Your task to perform on an android device: Open the Play Movies app and select the watchlist tab. Image 0: 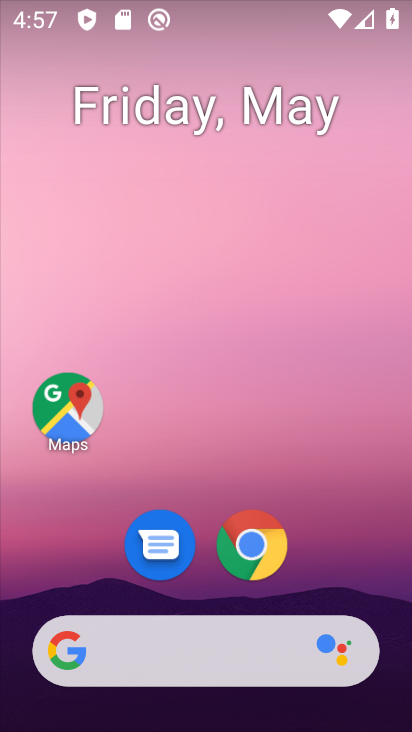
Step 0: click (328, 153)
Your task to perform on an android device: Open the Play Movies app and select the watchlist tab. Image 1: 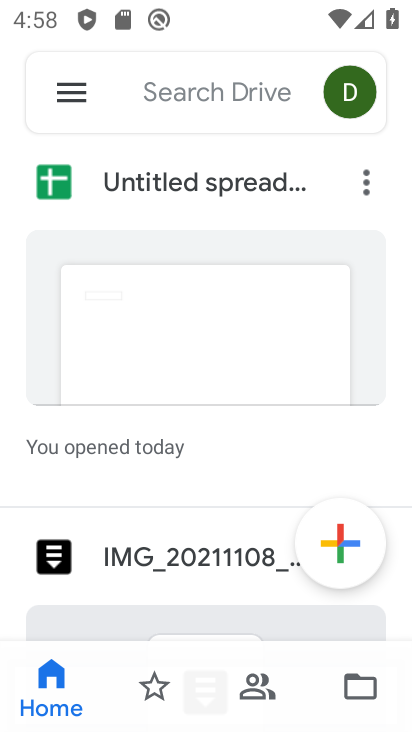
Step 1: press home button
Your task to perform on an android device: Open the Play Movies app and select the watchlist tab. Image 2: 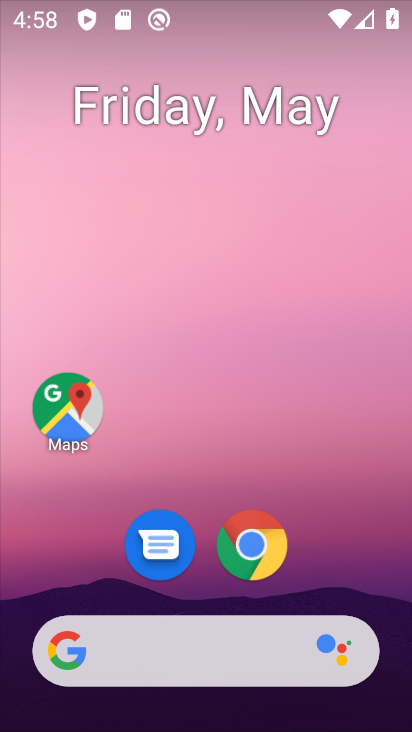
Step 2: drag from (389, 668) to (319, 84)
Your task to perform on an android device: Open the Play Movies app and select the watchlist tab. Image 3: 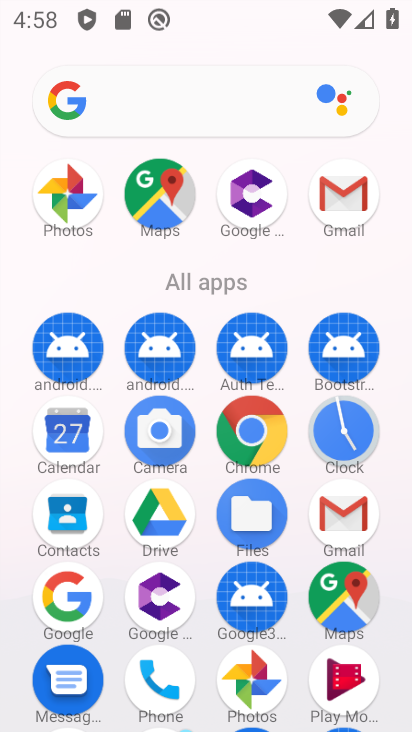
Step 3: click (340, 678)
Your task to perform on an android device: Open the Play Movies app and select the watchlist tab. Image 4: 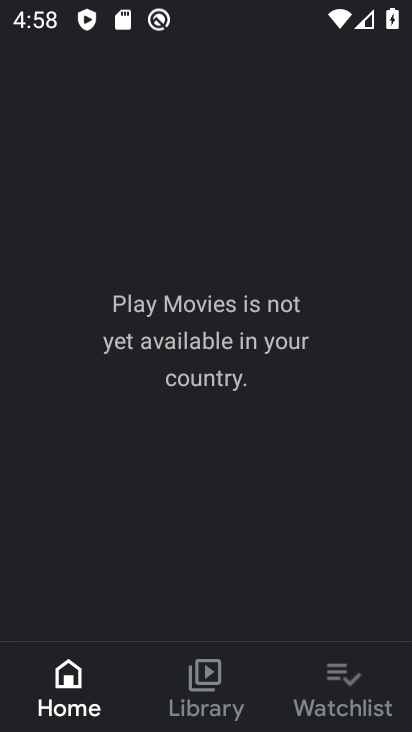
Step 4: click (344, 684)
Your task to perform on an android device: Open the Play Movies app and select the watchlist tab. Image 5: 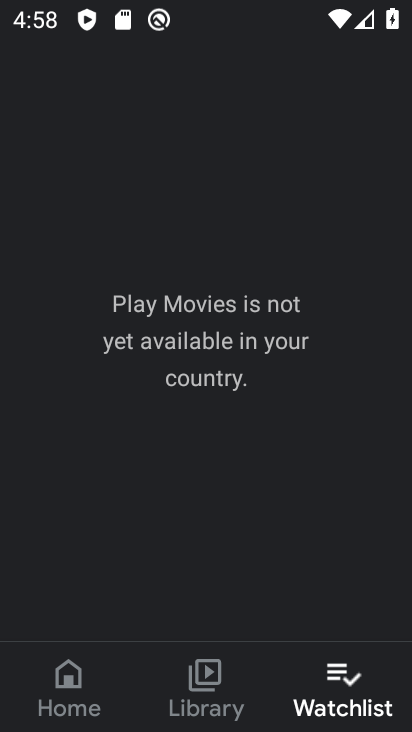
Step 5: task complete